Your task to perform on an android device: turn on the 12-hour format for clock Image 0: 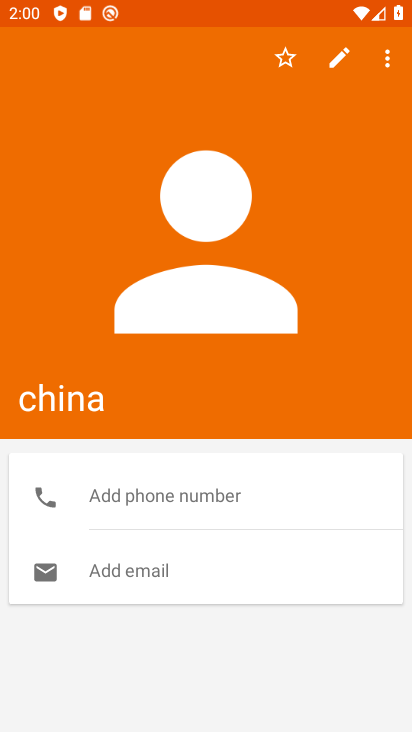
Step 0: press home button
Your task to perform on an android device: turn on the 12-hour format for clock Image 1: 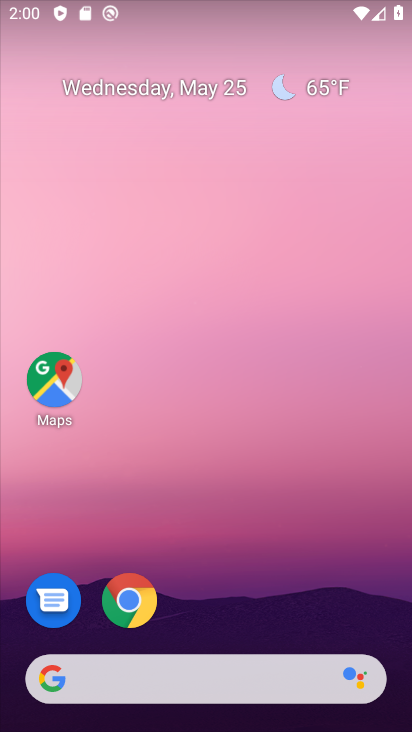
Step 1: drag from (327, 564) to (250, 119)
Your task to perform on an android device: turn on the 12-hour format for clock Image 2: 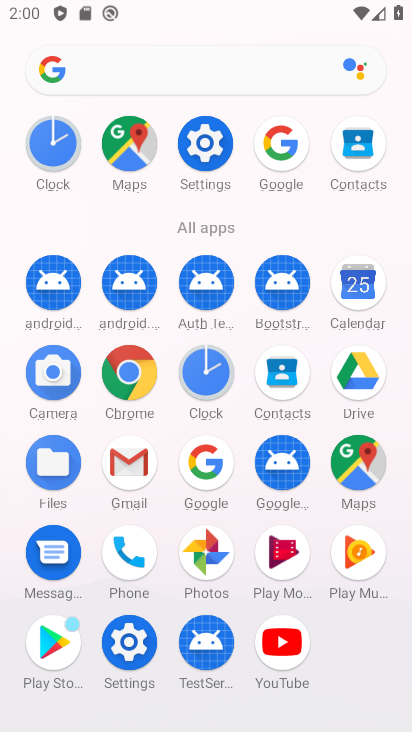
Step 2: click (221, 142)
Your task to perform on an android device: turn on the 12-hour format for clock Image 3: 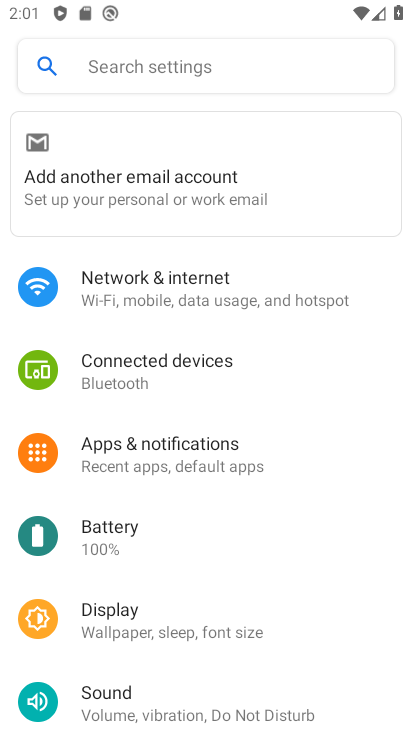
Step 3: drag from (265, 576) to (299, 202)
Your task to perform on an android device: turn on the 12-hour format for clock Image 4: 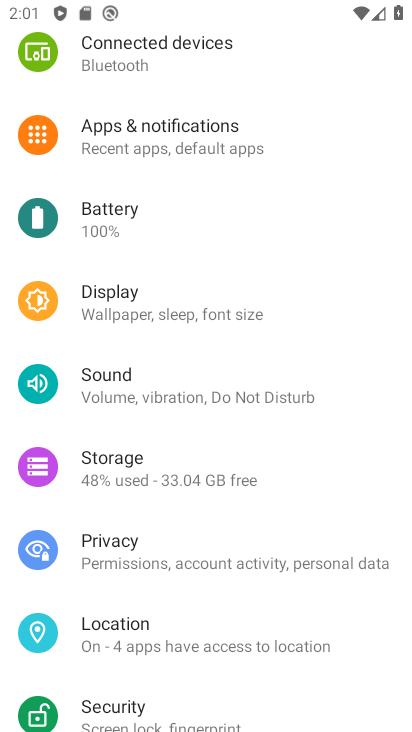
Step 4: press home button
Your task to perform on an android device: turn on the 12-hour format for clock Image 5: 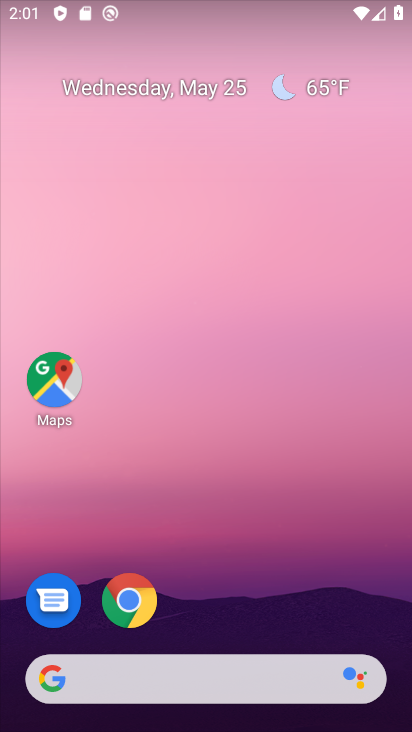
Step 5: drag from (307, 601) to (276, 138)
Your task to perform on an android device: turn on the 12-hour format for clock Image 6: 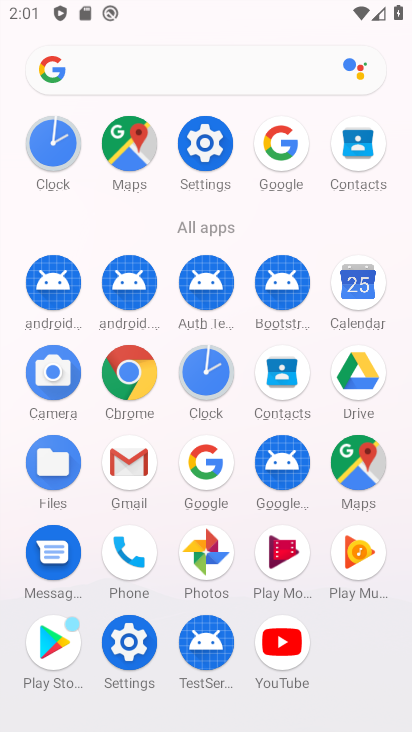
Step 6: click (214, 362)
Your task to perform on an android device: turn on the 12-hour format for clock Image 7: 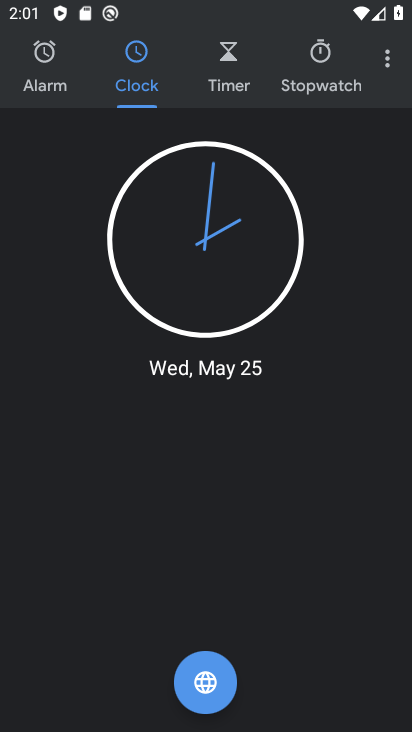
Step 7: click (396, 61)
Your task to perform on an android device: turn on the 12-hour format for clock Image 8: 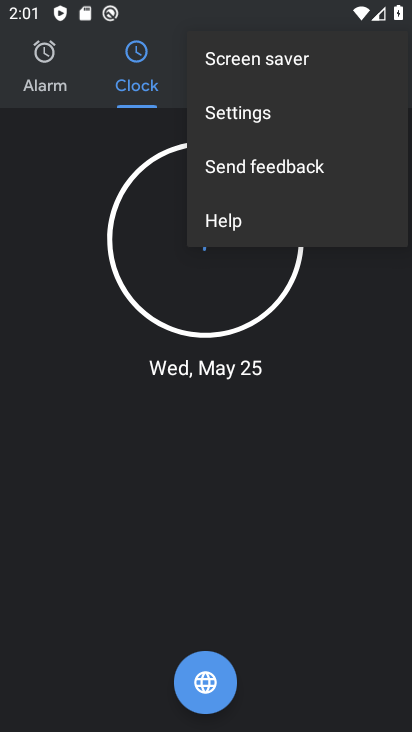
Step 8: click (258, 114)
Your task to perform on an android device: turn on the 12-hour format for clock Image 9: 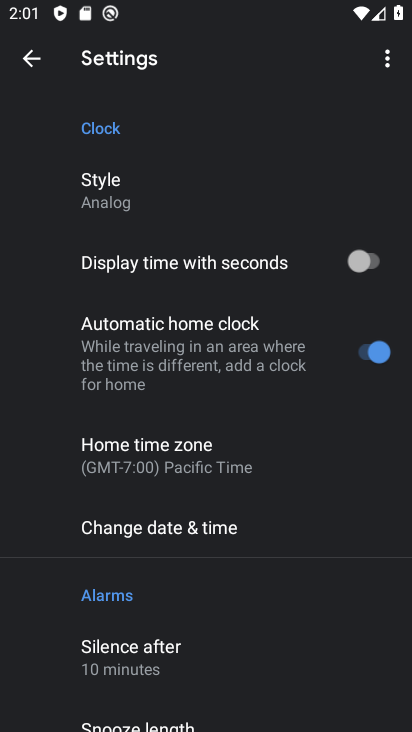
Step 9: click (159, 534)
Your task to perform on an android device: turn on the 12-hour format for clock Image 10: 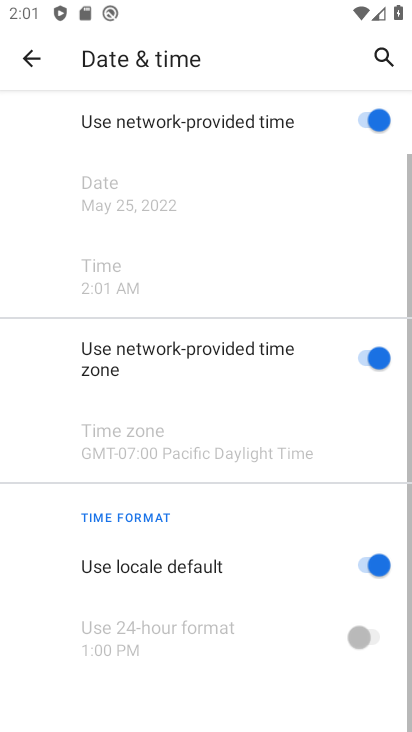
Step 10: task complete